Your task to perform on an android device: open chrome and create a bookmark for the current page Image 0: 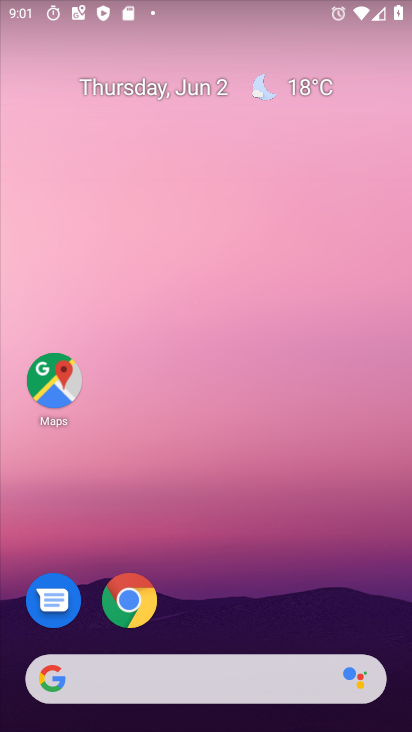
Step 0: drag from (362, 600) to (379, 206)
Your task to perform on an android device: open chrome and create a bookmark for the current page Image 1: 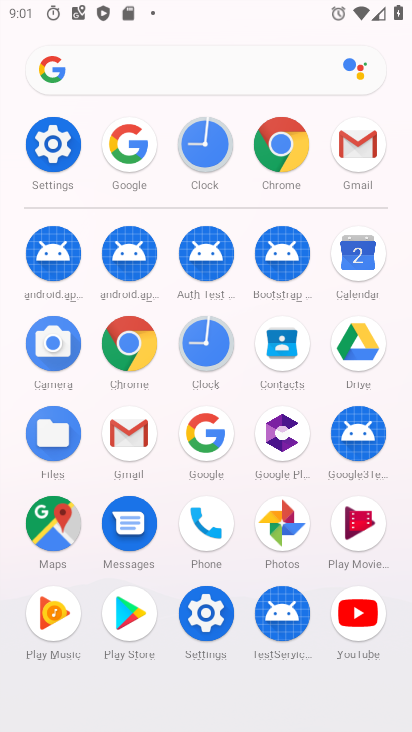
Step 1: click (144, 340)
Your task to perform on an android device: open chrome and create a bookmark for the current page Image 2: 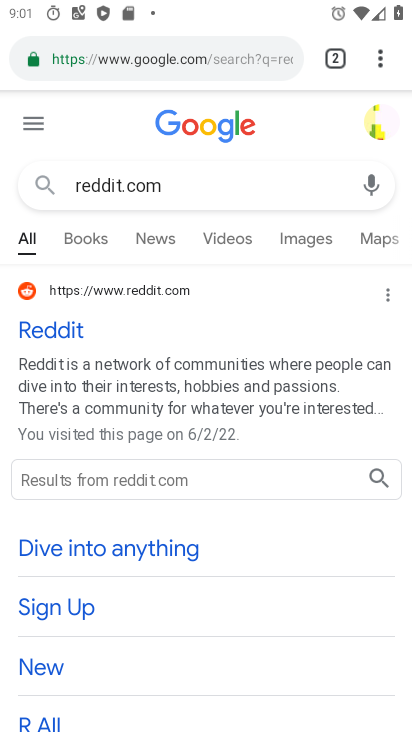
Step 2: click (379, 64)
Your task to perform on an android device: open chrome and create a bookmark for the current page Image 3: 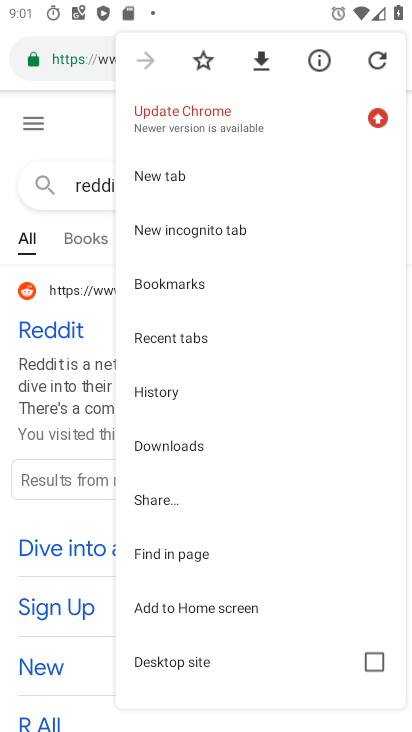
Step 3: drag from (303, 421) to (322, 297)
Your task to perform on an android device: open chrome and create a bookmark for the current page Image 4: 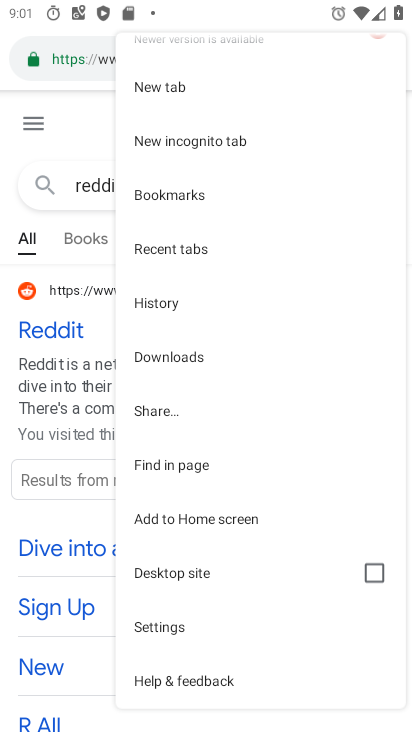
Step 4: drag from (306, 163) to (292, 381)
Your task to perform on an android device: open chrome and create a bookmark for the current page Image 5: 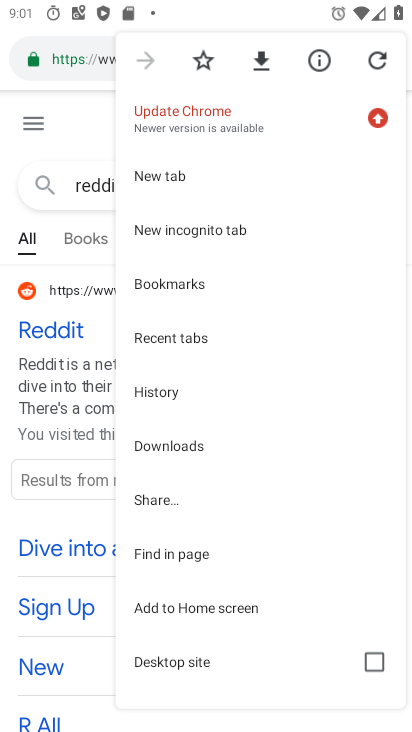
Step 5: click (200, 59)
Your task to perform on an android device: open chrome and create a bookmark for the current page Image 6: 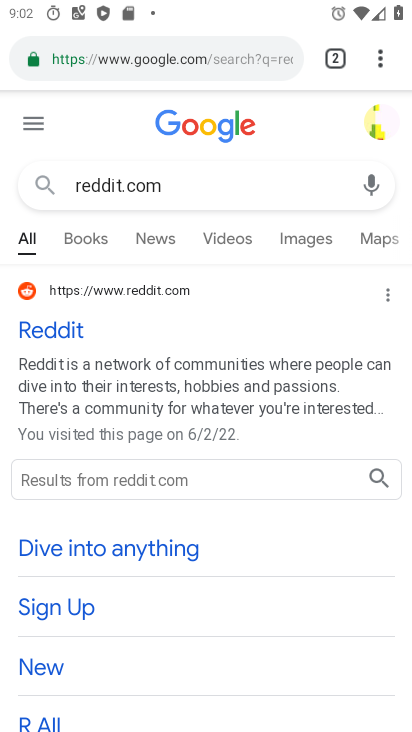
Step 6: task complete